Your task to perform on an android device: Open Google Chrome and click the shortcut for Amazon.com Image 0: 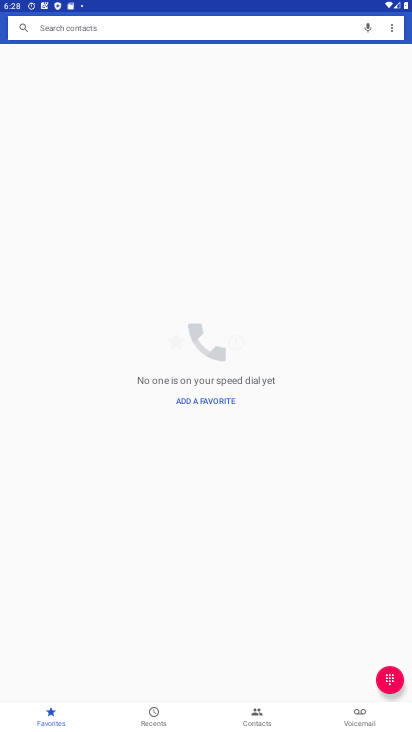
Step 0: press home button
Your task to perform on an android device: Open Google Chrome and click the shortcut for Amazon.com Image 1: 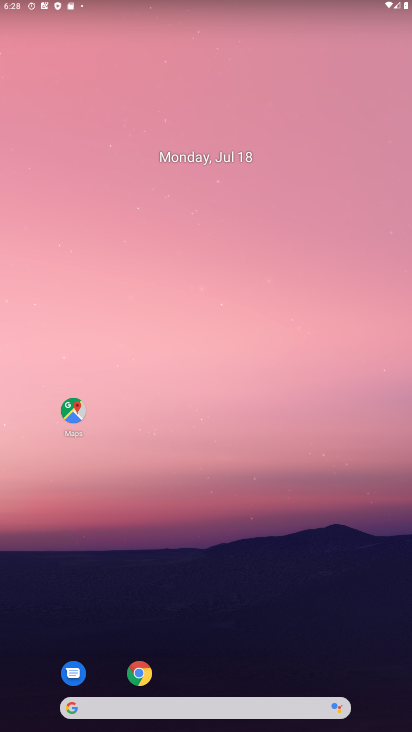
Step 1: click (142, 669)
Your task to perform on an android device: Open Google Chrome and click the shortcut for Amazon.com Image 2: 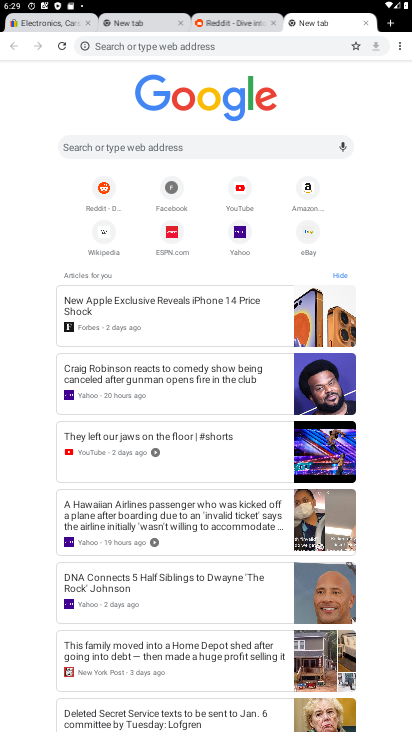
Step 2: click (307, 187)
Your task to perform on an android device: Open Google Chrome and click the shortcut for Amazon.com Image 3: 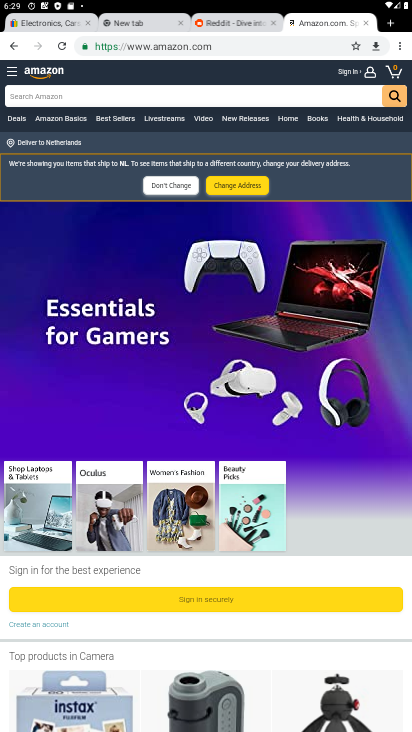
Step 3: task complete